Your task to perform on an android device: create a new album in the google photos Image 0: 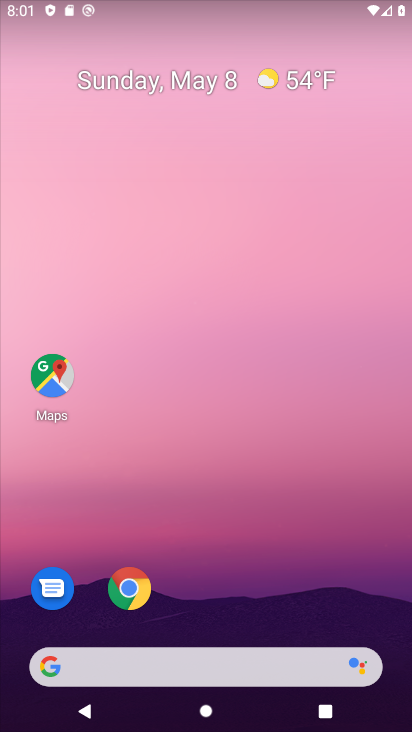
Step 0: drag from (118, 472) to (257, 174)
Your task to perform on an android device: create a new album in the google photos Image 1: 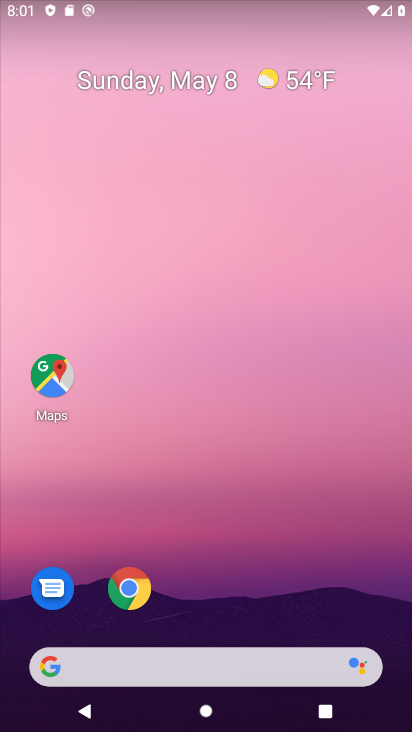
Step 1: drag from (46, 622) to (301, 207)
Your task to perform on an android device: create a new album in the google photos Image 2: 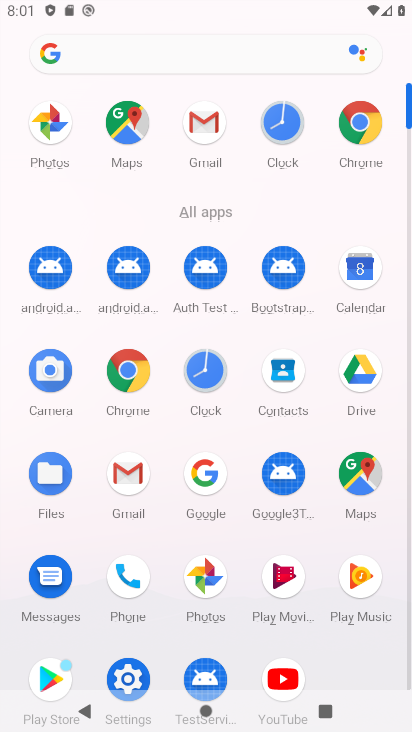
Step 2: click (197, 570)
Your task to perform on an android device: create a new album in the google photos Image 3: 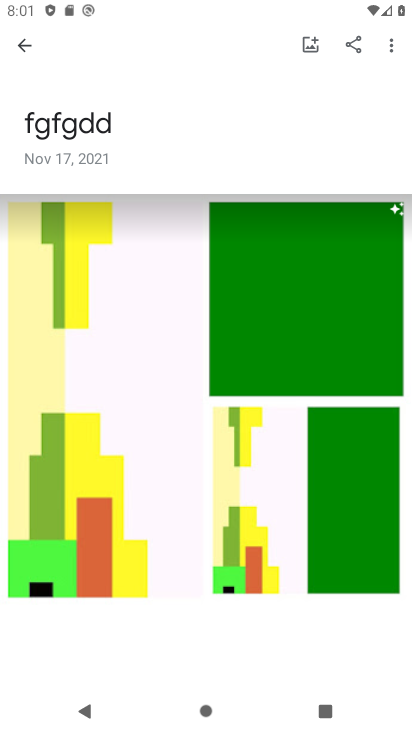
Step 3: press back button
Your task to perform on an android device: create a new album in the google photos Image 4: 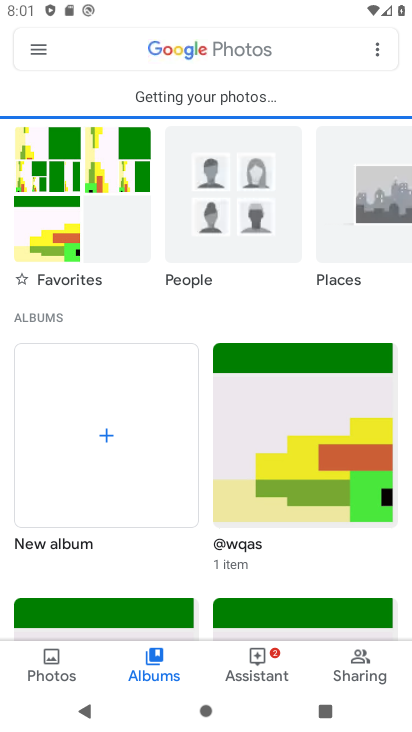
Step 4: click (148, 676)
Your task to perform on an android device: create a new album in the google photos Image 5: 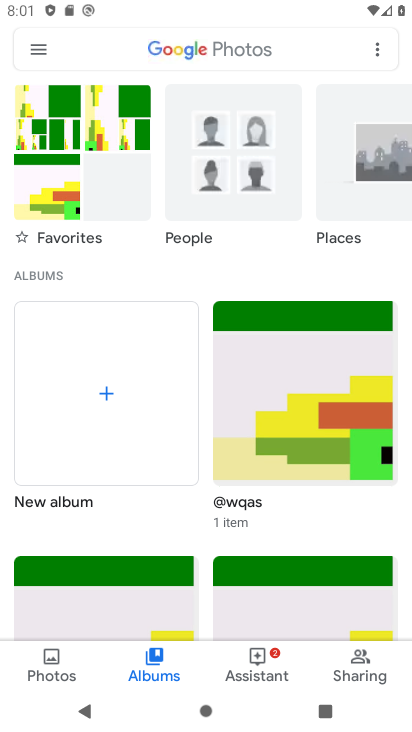
Step 5: click (373, 54)
Your task to perform on an android device: create a new album in the google photos Image 6: 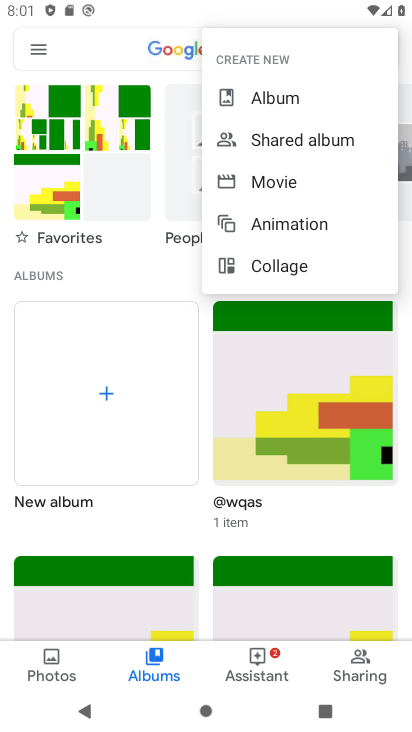
Step 6: click (281, 100)
Your task to perform on an android device: create a new album in the google photos Image 7: 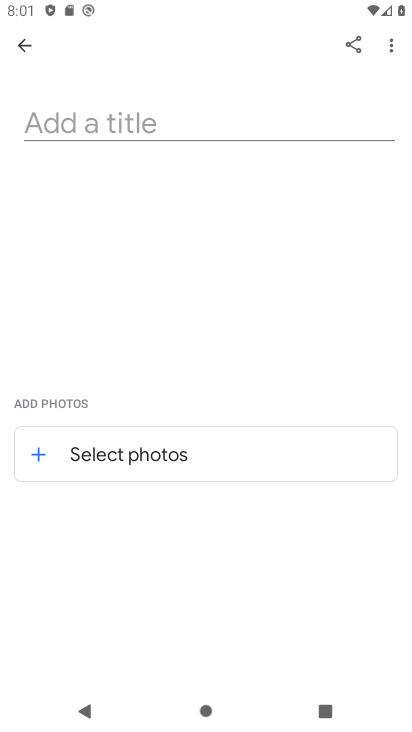
Step 7: click (97, 131)
Your task to perform on an android device: create a new album in the google photos Image 8: 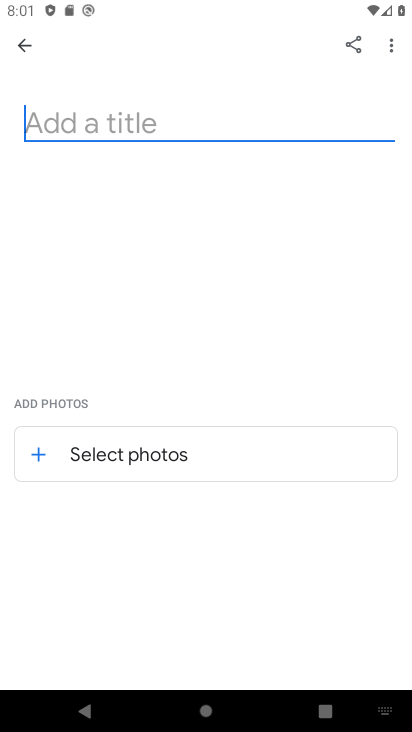
Step 8: type "vgfdgh"
Your task to perform on an android device: create a new album in the google photos Image 9: 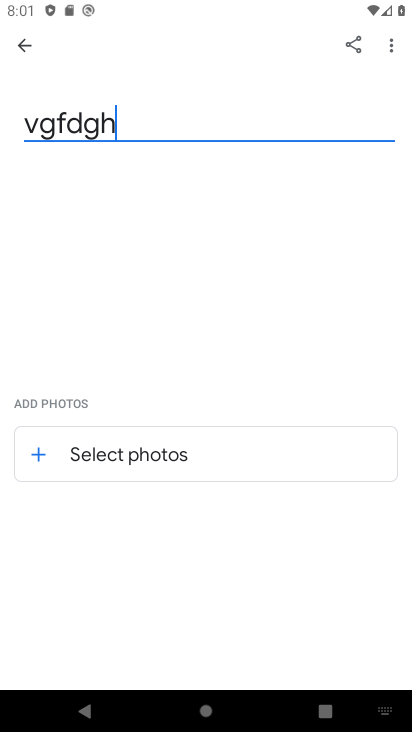
Step 9: type ""
Your task to perform on an android device: create a new album in the google photos Image 10: 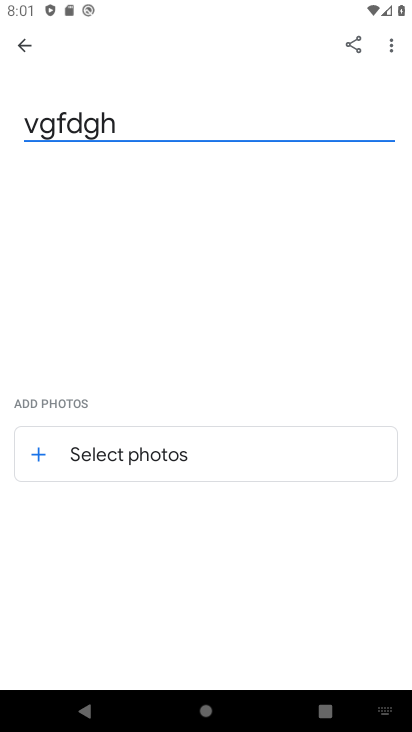
Step 10: click (266, 452)
Your task to perform on an android device: create a new album in the google photos Image 11: 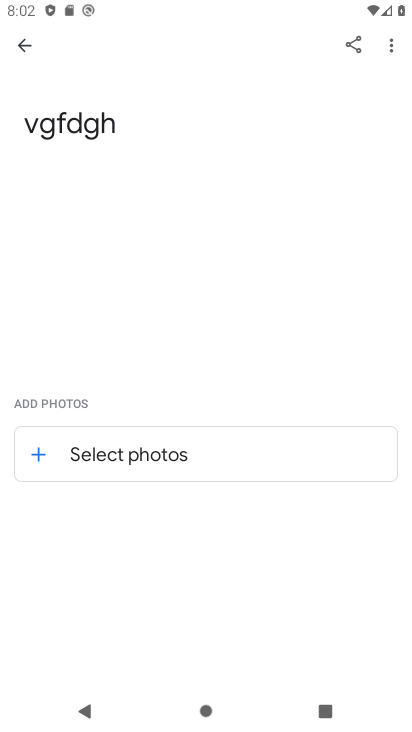
Step 11: click (129, 448)
Your task to perform on an android device: create a new album in the google photos Image 12: 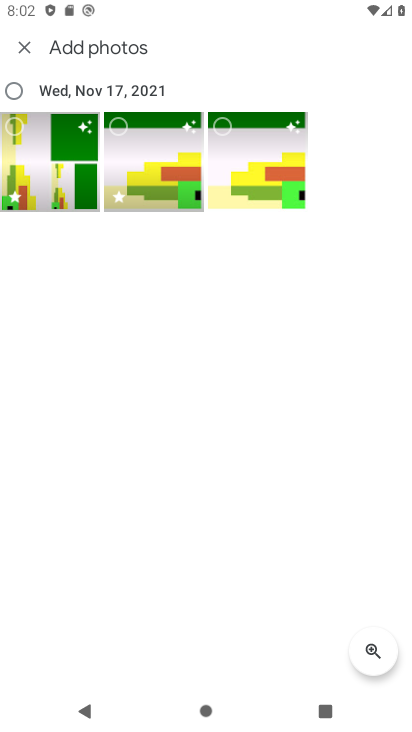
Step 12: click (116, 127)
Your task to perform on an android device: create a new album in the google photos Image 13: 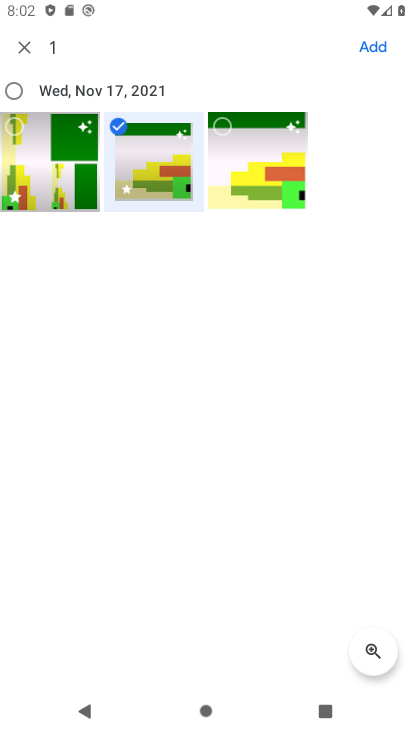
Step 13: click (369, 38)
Your task to perform on an android device: create a new album in the google photos Image 14: 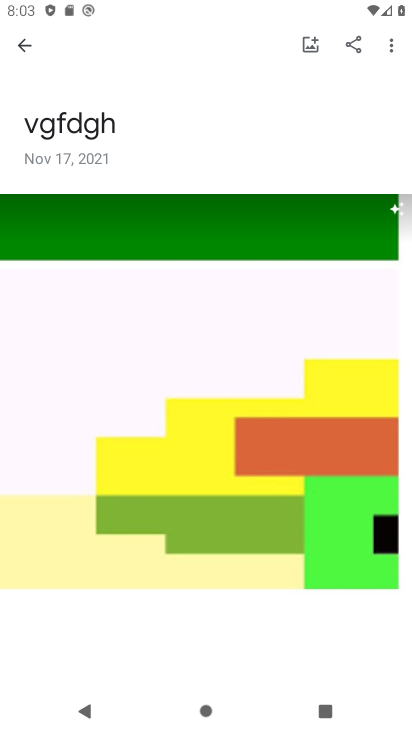
Step 14: task complete